Your task to perform on an android device: Open Amazon Image 0: 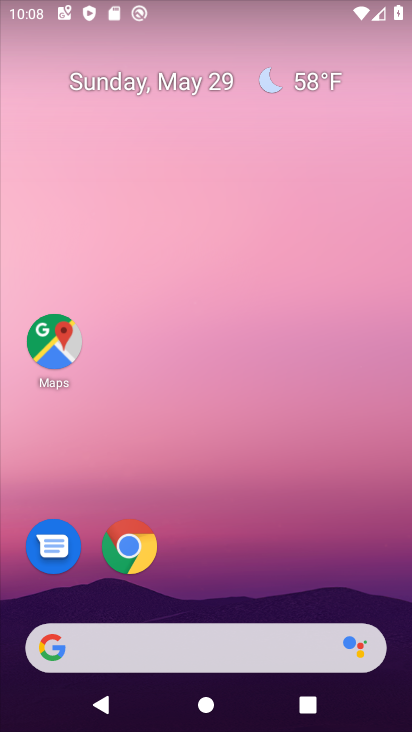
Step 0: click (130, 535)
Your task to perform on an android device: Open Amazon Image 1: 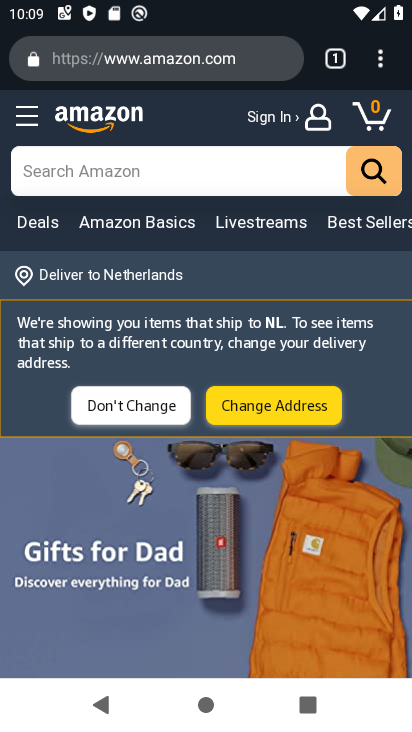
Step 1: task complete